Your task to perform on an android device: clear history in the chrome app Image 0: 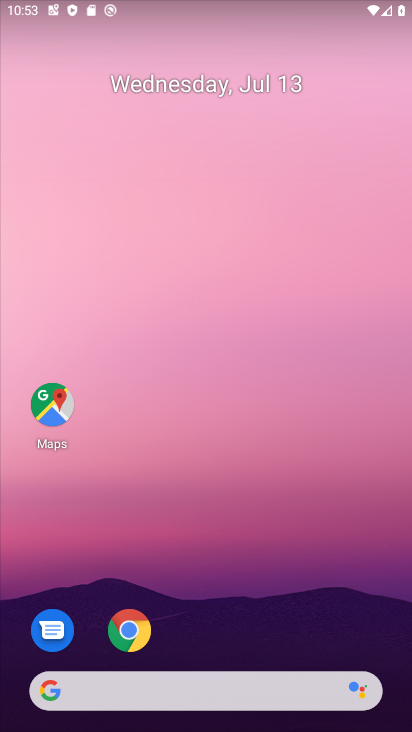
Step 0: drag from (257, 550) to (230, 0)
Your task to perform on an android device: clear history in the chrome app Image 1: 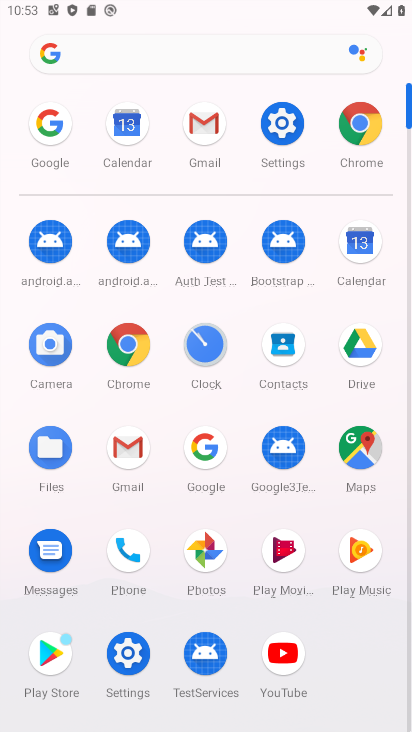
Step 1: click (372, 121)
Your task to perform on an android device: clear history in the chrome app Image 2: 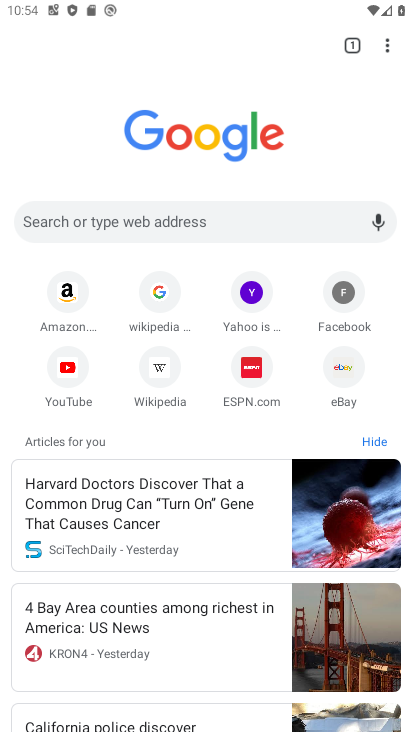
Step 2: drag from (389, 45) to (216, 255)
Your task to perform on an android device: clear history in the chrome app Image 3: 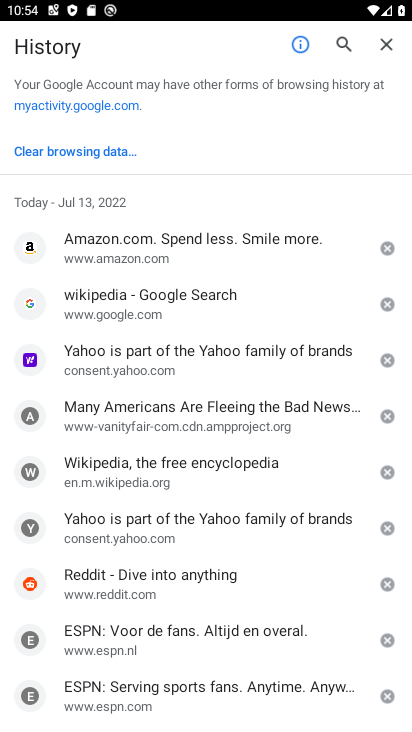
Step 3: click (53, 150)
Your task to perform on an android device: clear history in the chrome app Image 4: 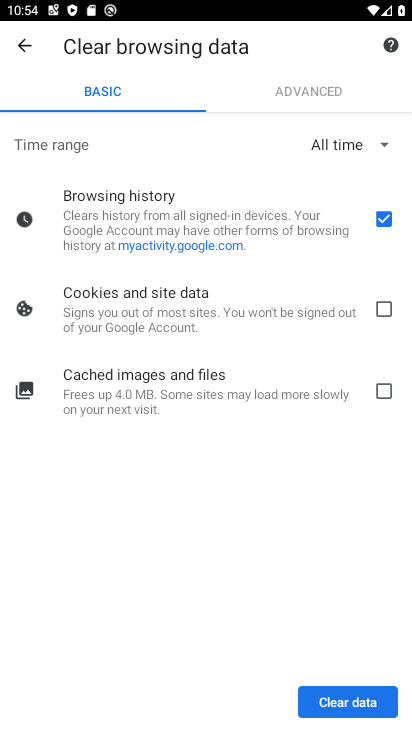
Step 4: click (328, 705)
Your task to perform on an android device: clear history in the chrome app Image 5: 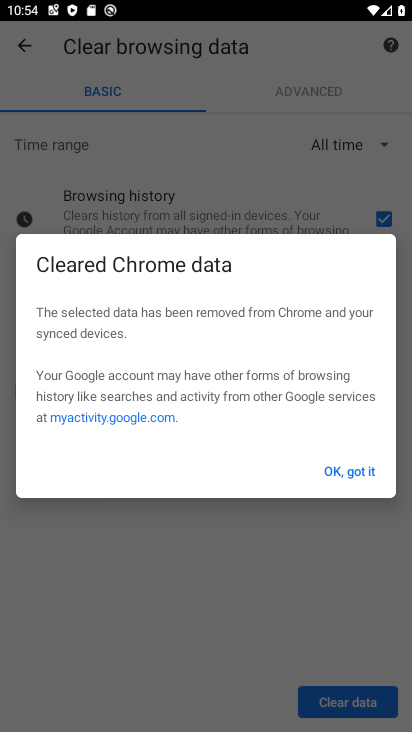
Step 5: click (363, 478)
Your task to perform on an android device: clear history in the chrome app Image 6: 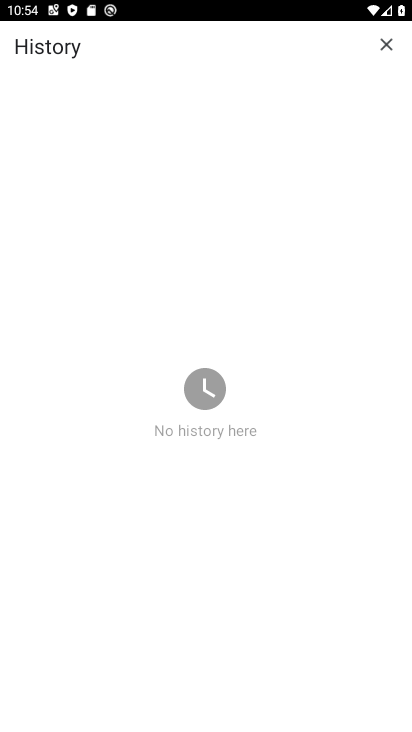
Step 6: task complete